Your task to perform on an android device: Open Android settings Image 0: 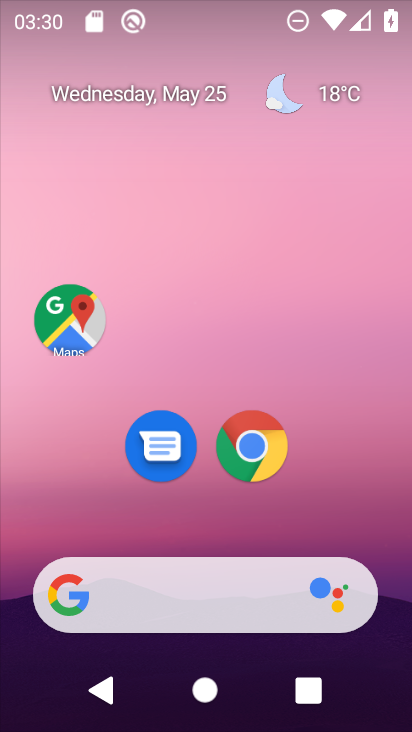
Step 0: drag from (212, 580) to (211, 136)
Your task to perform on an android device: Open Android settings Image 1: 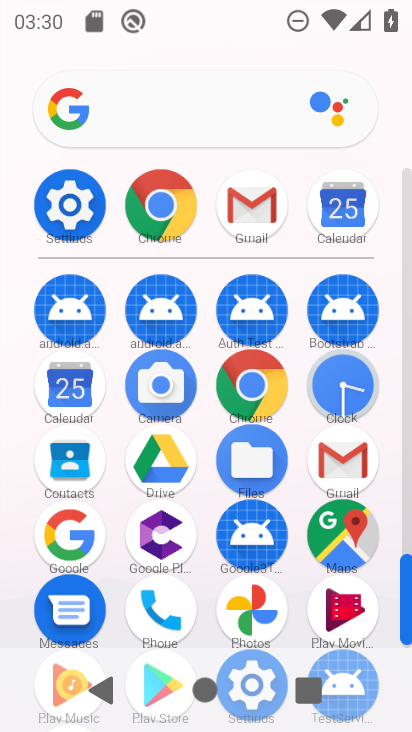
Step 1: click (68, 215)
Your task to perform on an android device: Open Android settings Image 2: 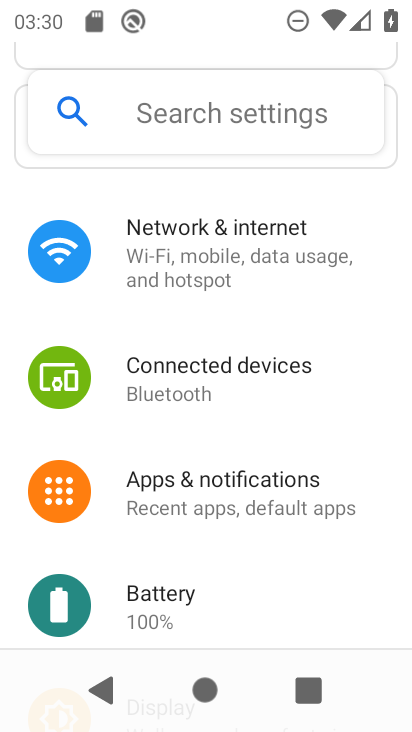
Step 2: task complete